Your task to perform on an android device: Go to eBay Image 0: 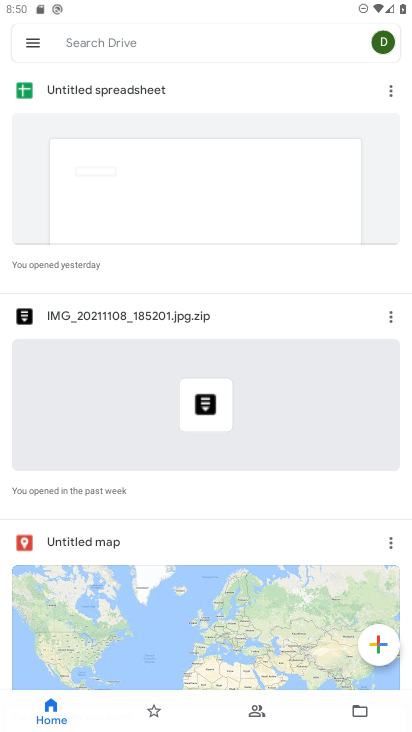
Step 0: press home button
Your task to perform on an android device: Go to eBay Image 1: 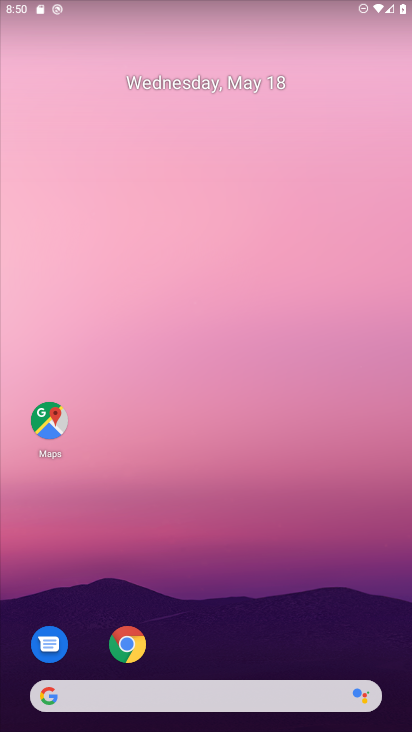
Step 1: click (119, 692)
Your task to perform on an android device: Go to eBay Image 2: 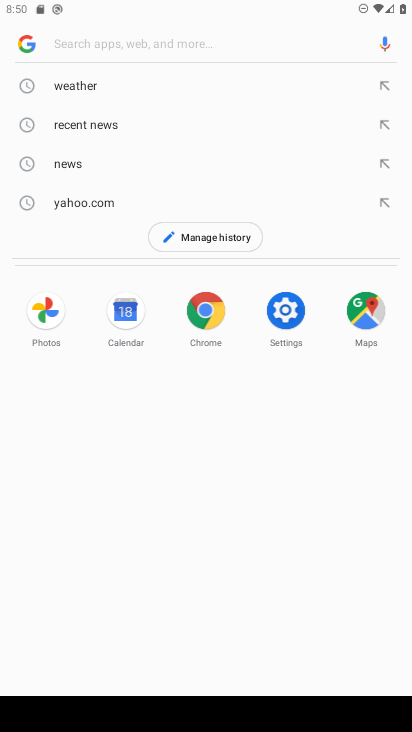
Step 2: type "ebay"
Your task to perform on an android device: Go to eBay Image 3: 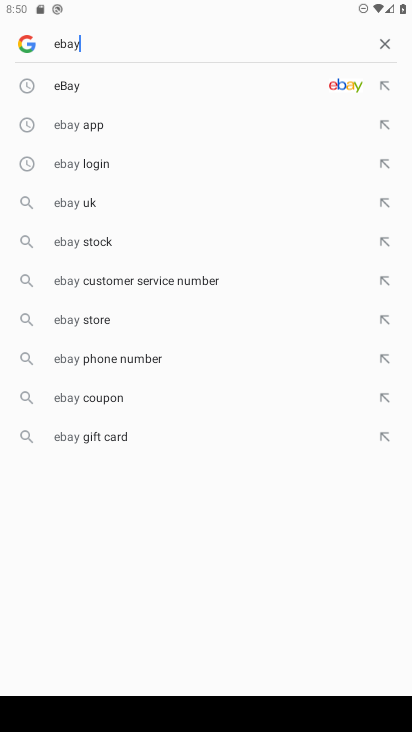
Step 3: click (86, 89)
Your task to perform on an android device: Go to eBay Image 4: 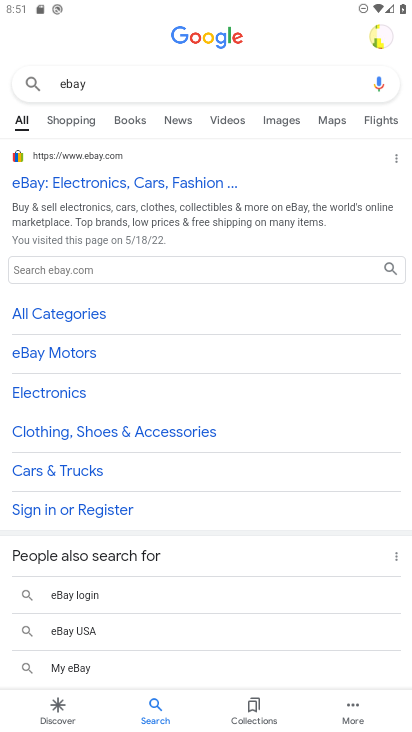
Step 4: click (180, 182)
Your task to perform on an android device: Go to eBay Image 5: 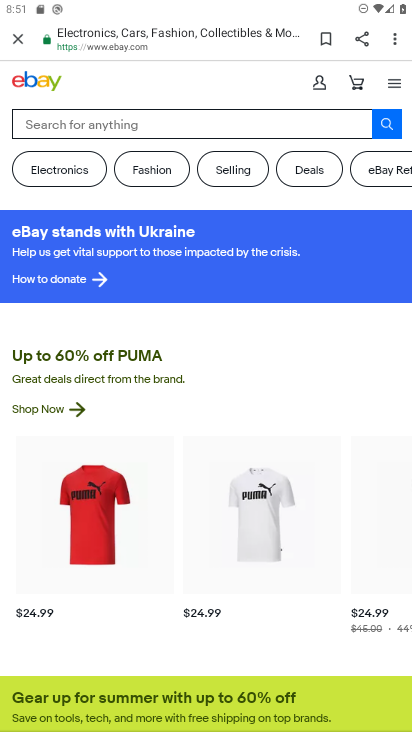
Step 5: task complete